Your task to perform on an android device: check battery use Image 0: 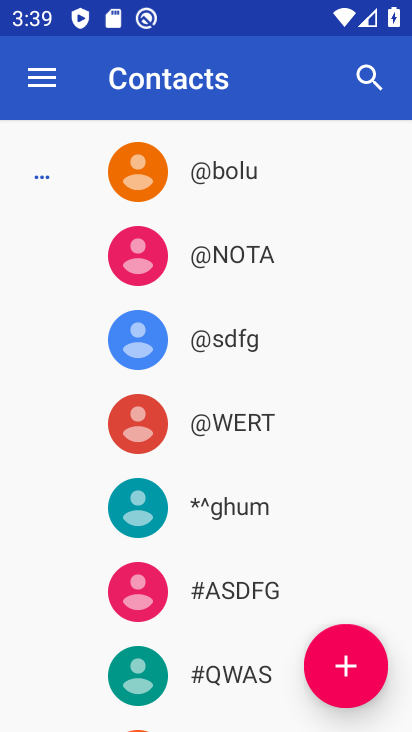
Step 0: press home button
Your task to perform on an android device: check battery use Image 1: 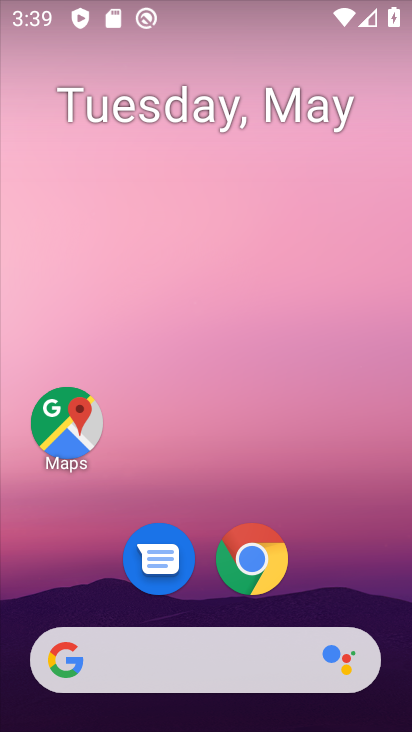
Step 1: drag from (340, 603) to (296, 173)
Your task to perform on an android device: check battery use Image 2: 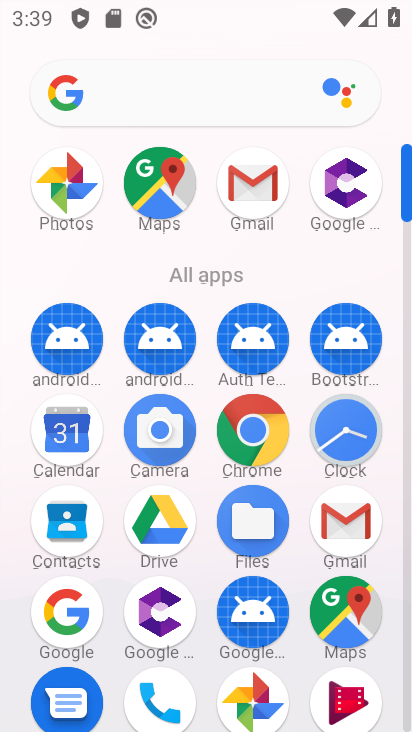
Step 2: click (406, 650)
Your task to perform on an android device: check battery use Image 3: 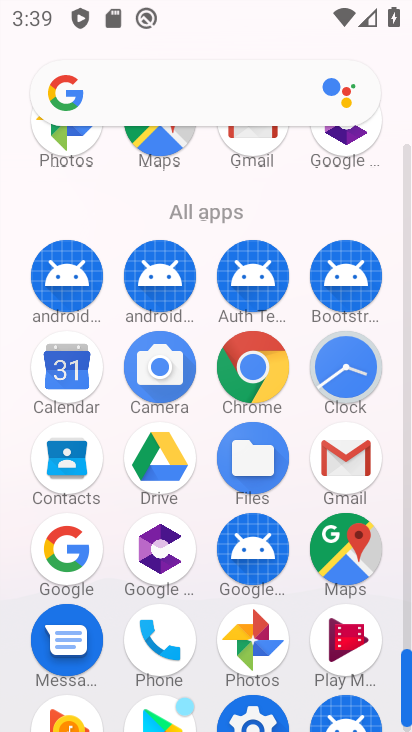
Step 3: click (252, 702)
Your task to perform on an android device: check battery use Image 4: 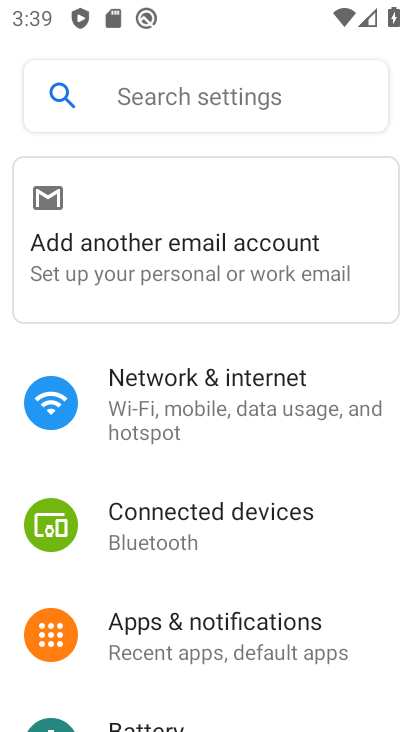
Step 4: drag from (239, 673) to (201, 453)
Your task to perform on an android device: check battery use Image 5: 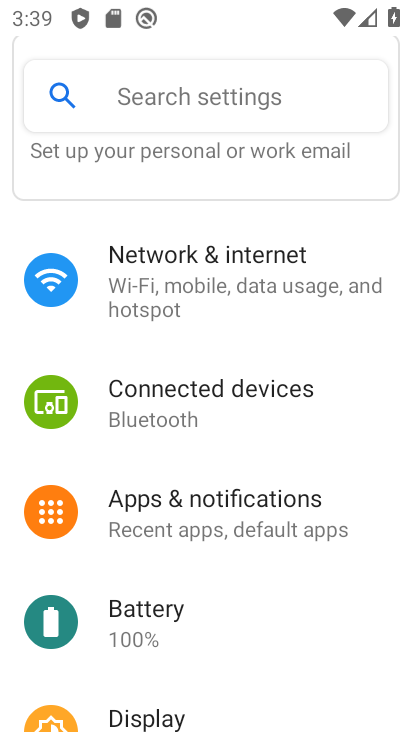
Step 5: click (199, 621)
Your task to perform on an android device: check battery use Image 6: 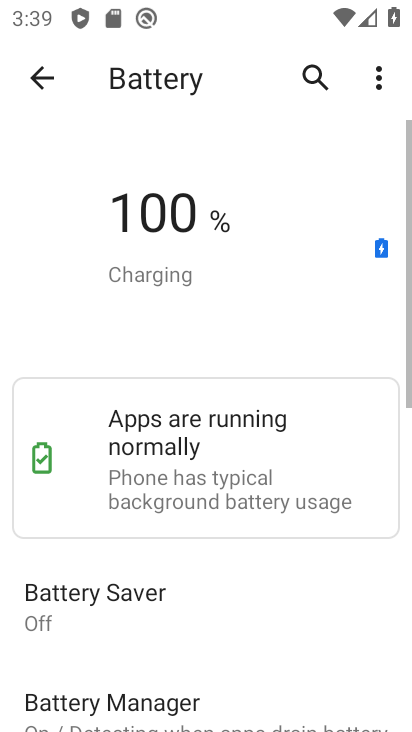
Step 6: click (381, 83)
Your task to perform on an android device: check battery use Image 7: 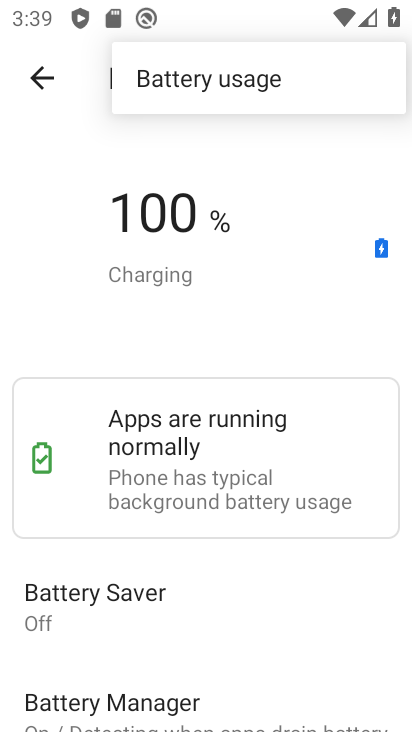
Step 7: click (271, 88)
Your task to perform on an android device: check battery use Image 8: 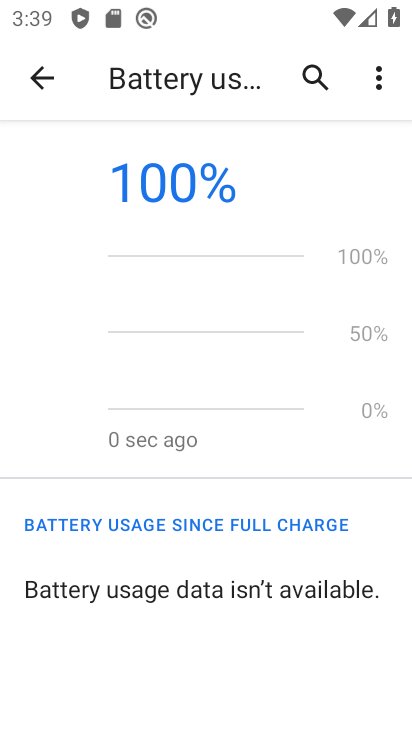
Step 8: task complete